Your task to perform on an android device: turn on bluetooth scan Image 0: 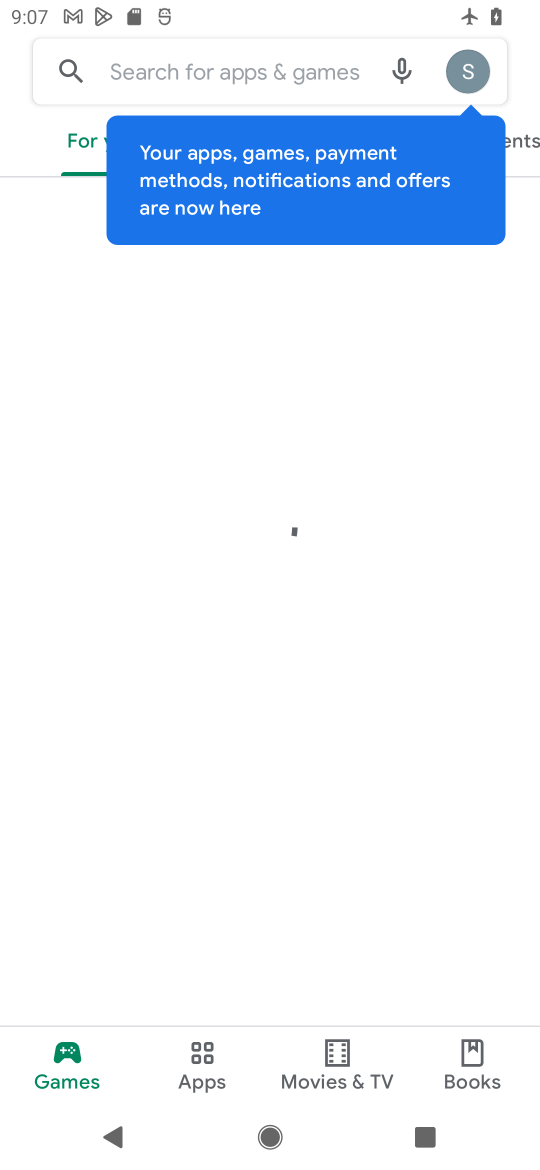
Step 0: press home button
Your task to perform on an android device: turn on bluetooth scan Image 1: 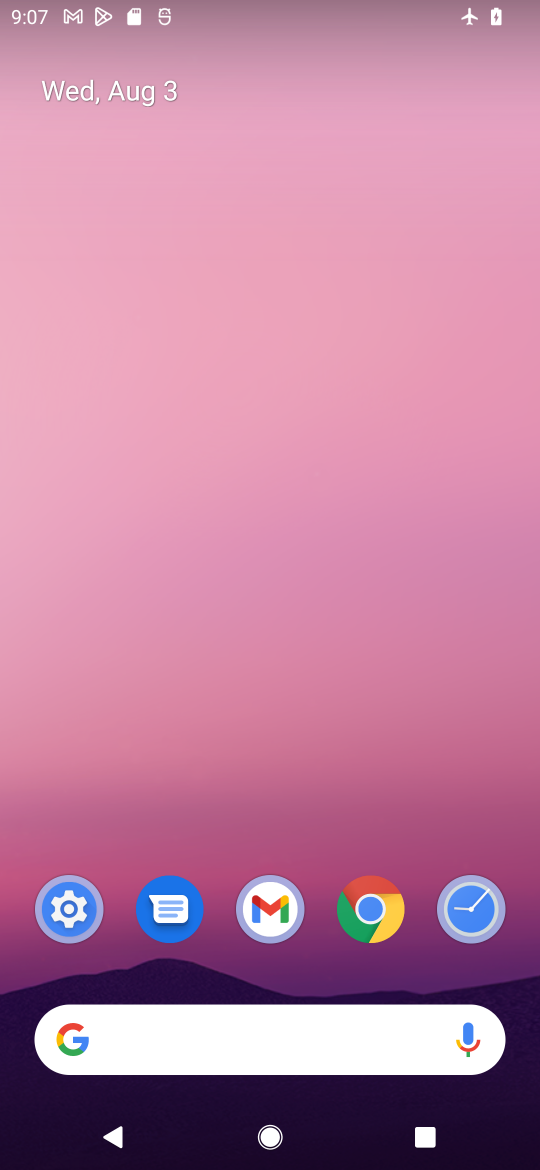
Step 1: drag from (411, 816) to (422, 323)
Your task to perform on an android device: turn on bluetooth scan Image 2: 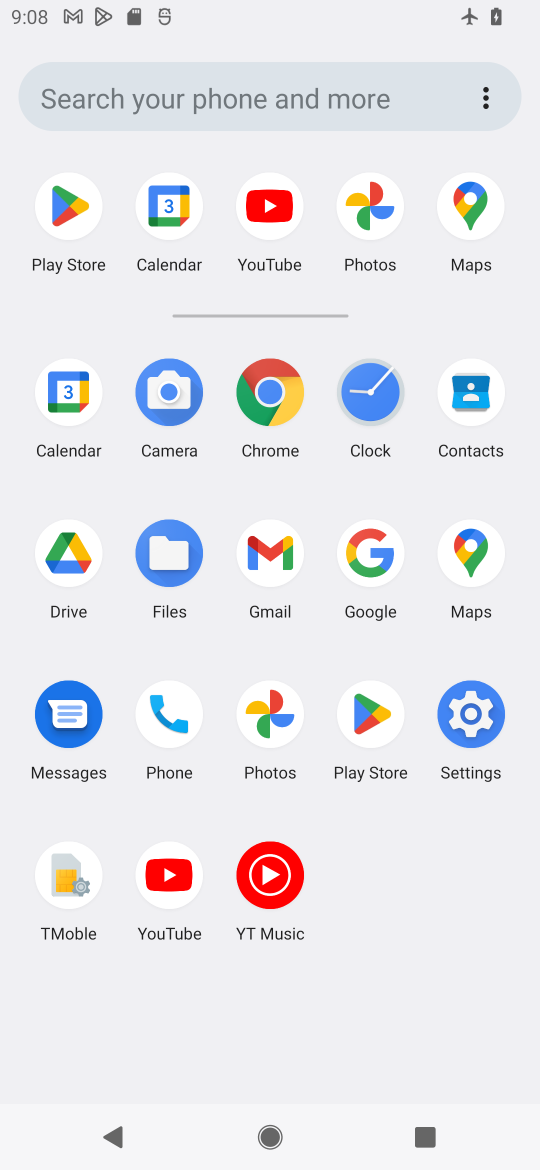
Step 2: click (482, 734)
Your task to perform on an android device: turn on bluetooth scan Image 3: 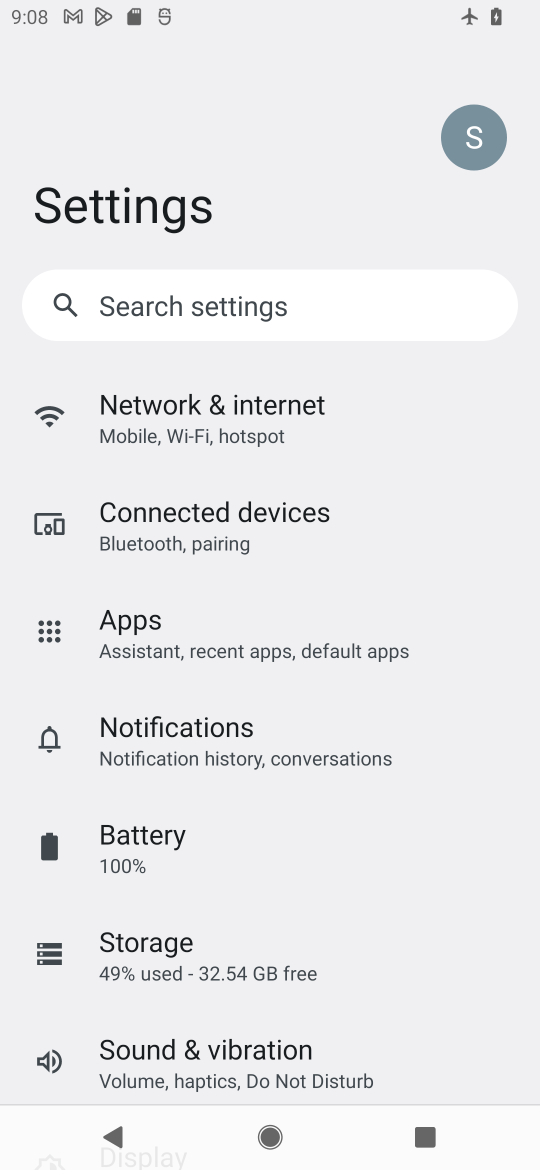
Step 3: drag from (469, 542) to (469, 725)
Your task to perform on an android device: turn on bluetooth scan Image 4: 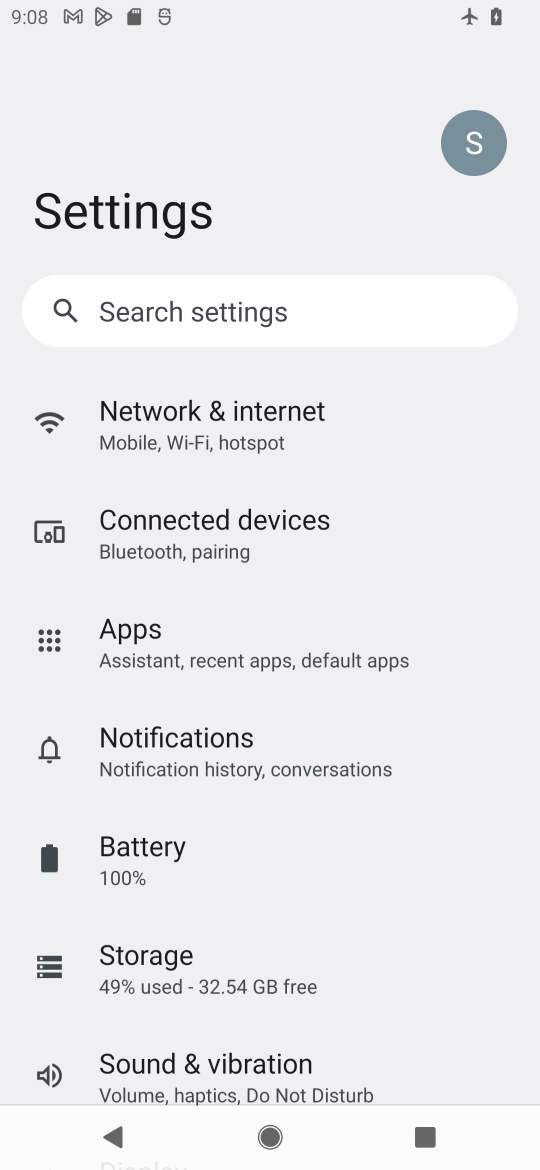
Step 4: drag from (469, 763) to (469, 648)
Your task to perform on an android device: turn on bluetooth scan Image 5: 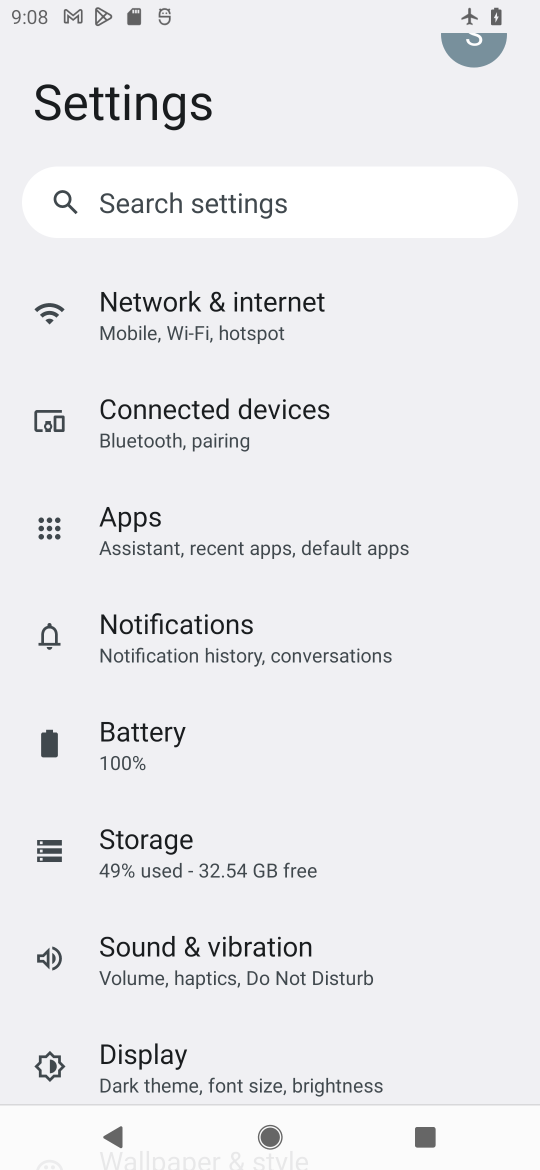
Step 5: drag from (467, 788) to (459, 661)
Your task to perform on an android device: turn on bluetooth scan Image 6: 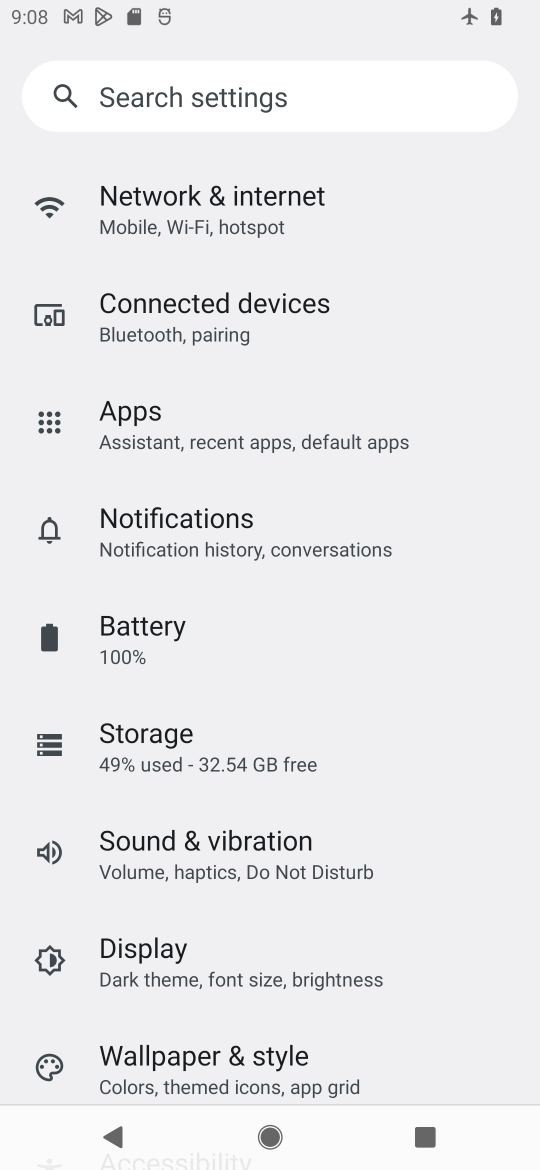
Step 6: drag from (469, 868) to (479, 773)
Your task to perform on an android device: turn on bluetooth scan Image 7: 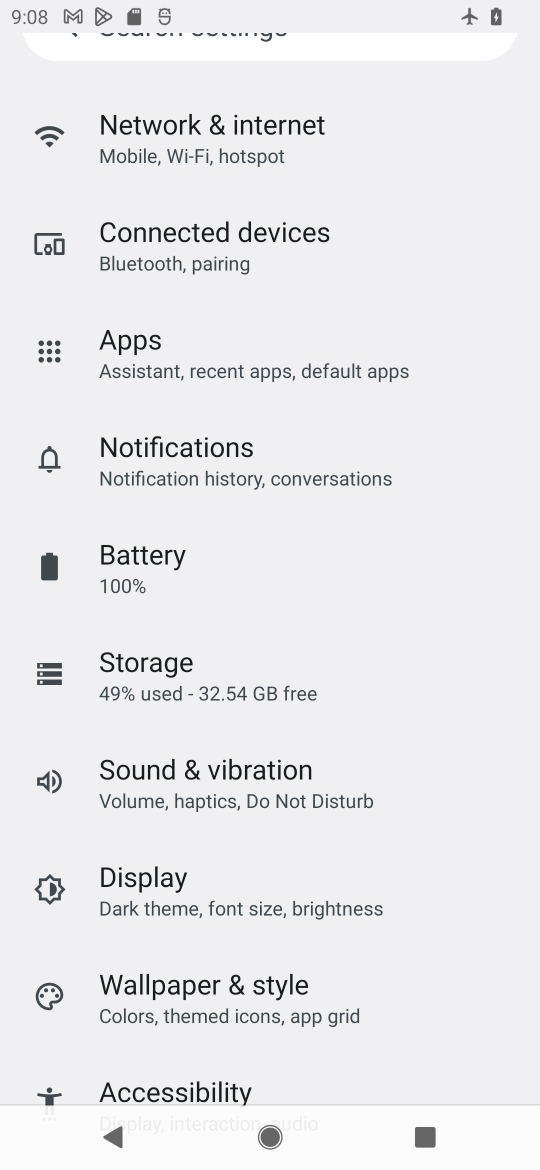
Step 7: drag from (482, 901) to (507, 793)
Your task to perform on an android device: turn on bluetooth scan Image 8: 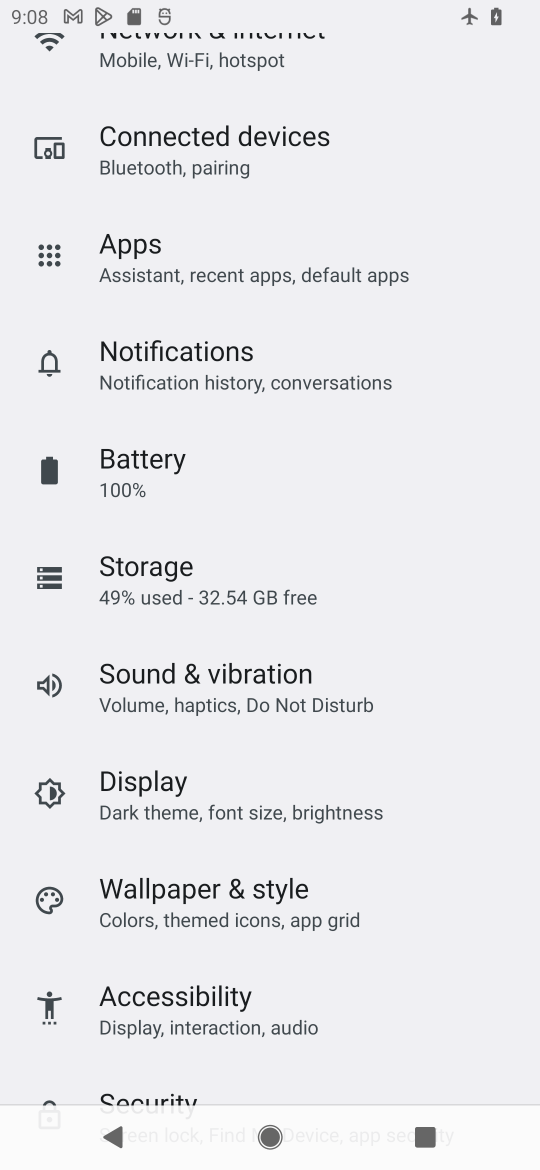
Step 8: drag from (472, 951) to (483, 822)
Your task to perform on an android device: turn on bluetooth scan Image 9: 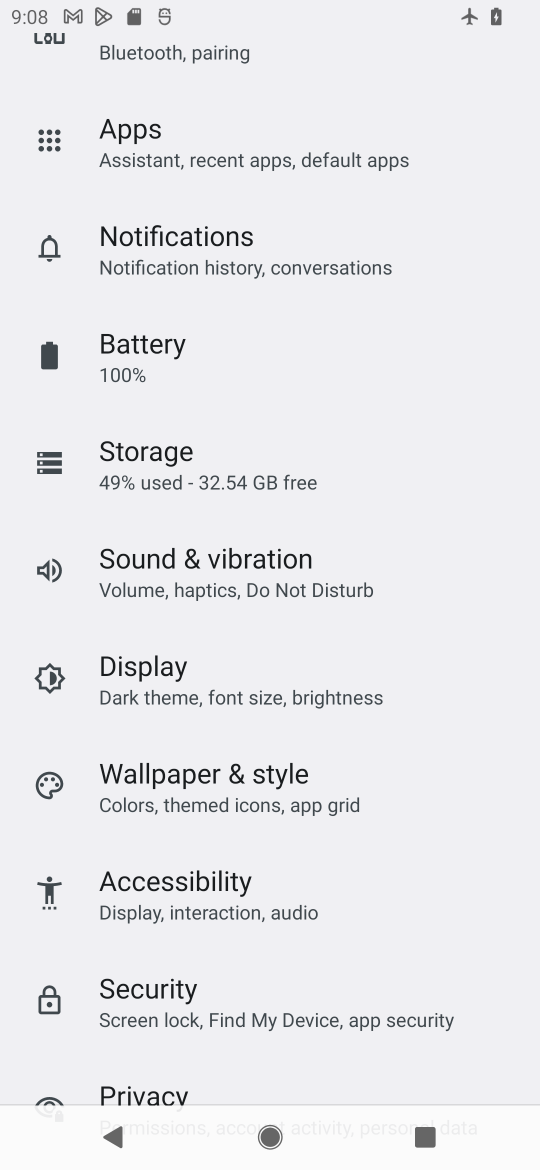
Step 9: drag from (439, 941) to (445, 770)
Your task to perform on an android device: turn on bluetooth scan Image 10: 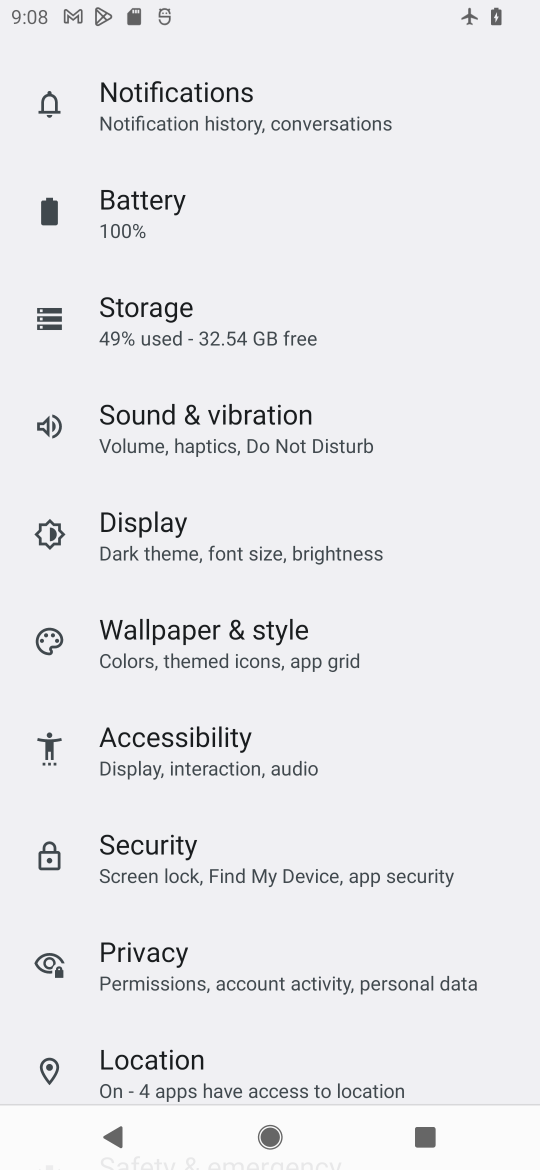
Step 10: drag from (438, 936) to (438, 796)
Your task to perform on an android device: turn on bluetooth scan Image 11: 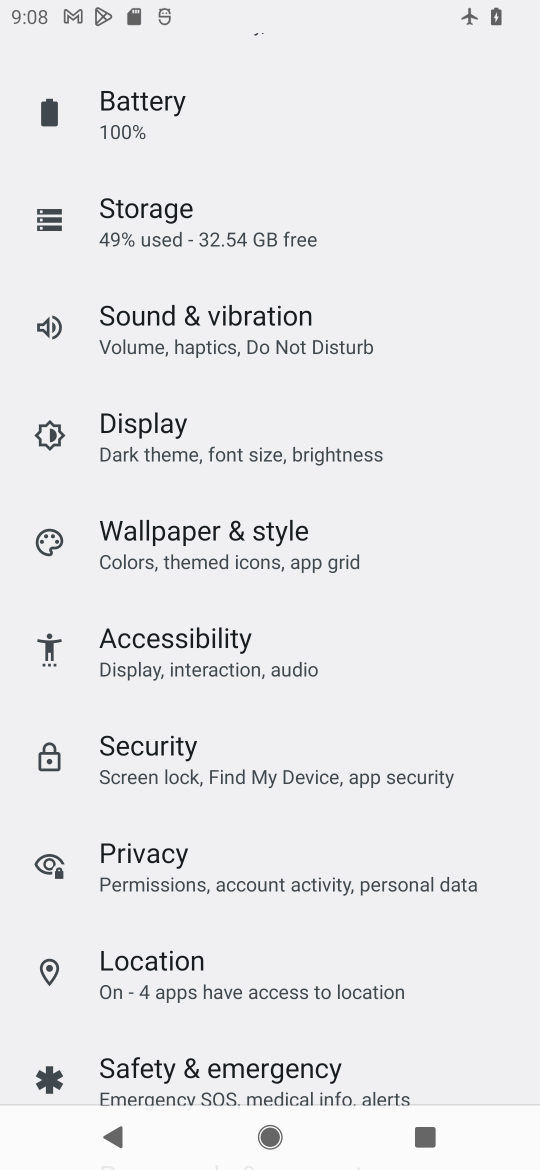
Step 11: drag from (456, 994) to (456, 804)
Your task to perform on an android device: turn on bluetooth scan Image 12: 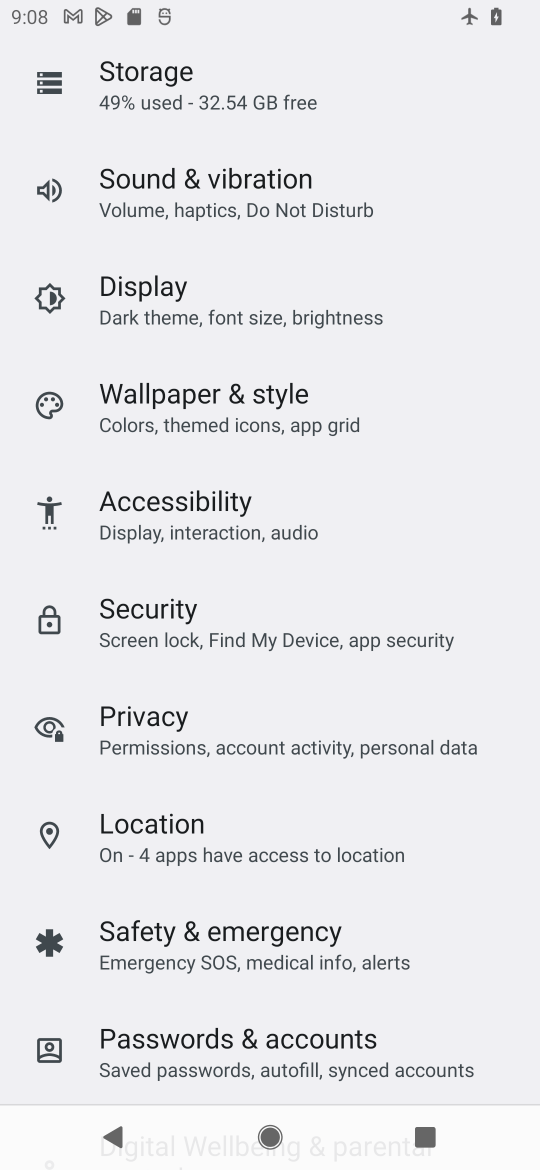
Step 12: drag from (453, 1010) to (456, 835)
Your task to perform on an android device: turn on bluetooth scan Image 13: 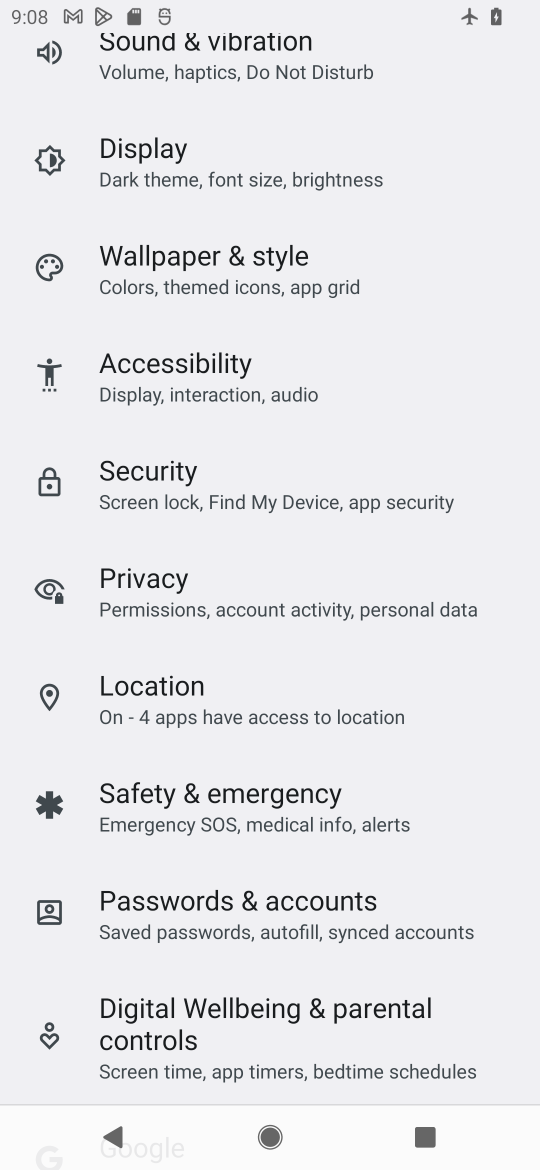
Step 13: click (396, 697)
Your task to perform on an android device: turn on bluetooth scan Image 14: 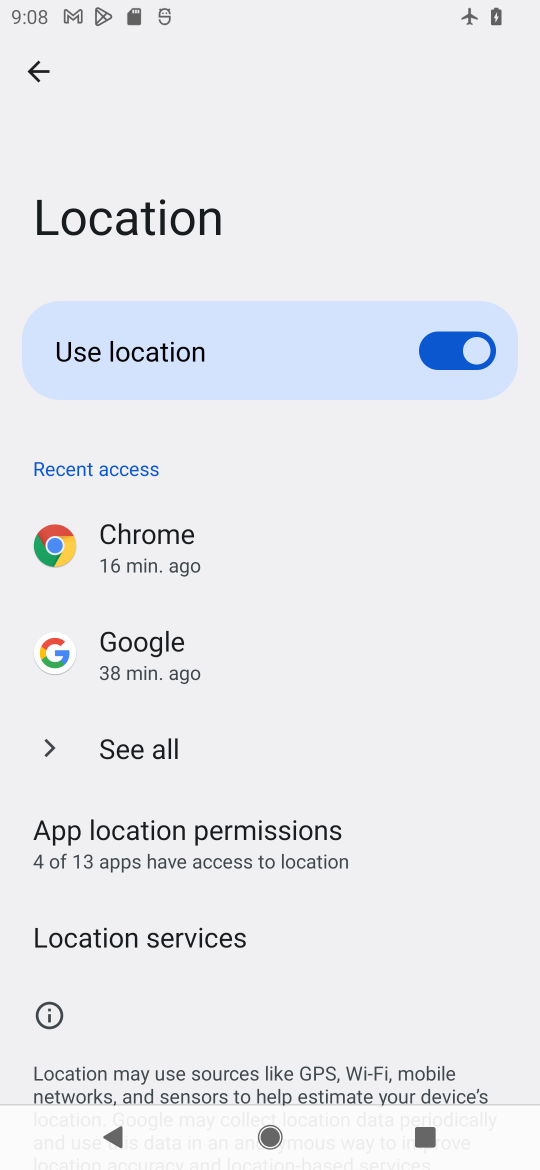
Step 14: drag from (443, 853) to (444, 702)
Your task to perform on an android device: turn on bluetooth scan Image 15: 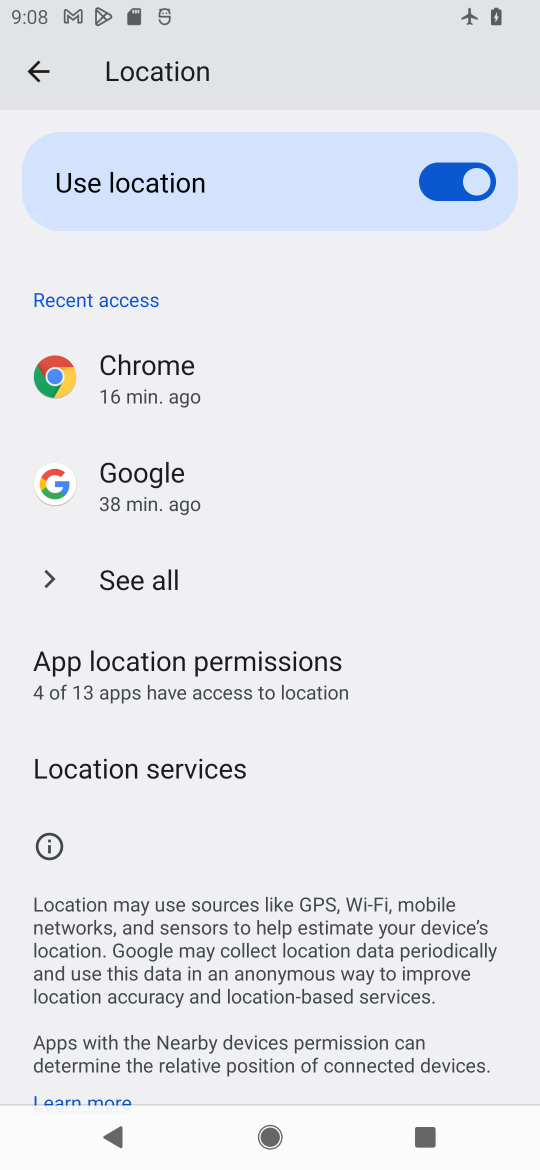
Step 15: drag from (434, 828) to (450, 617)
Your task to perform on an android device: turn on bluetooth scan Image 16: 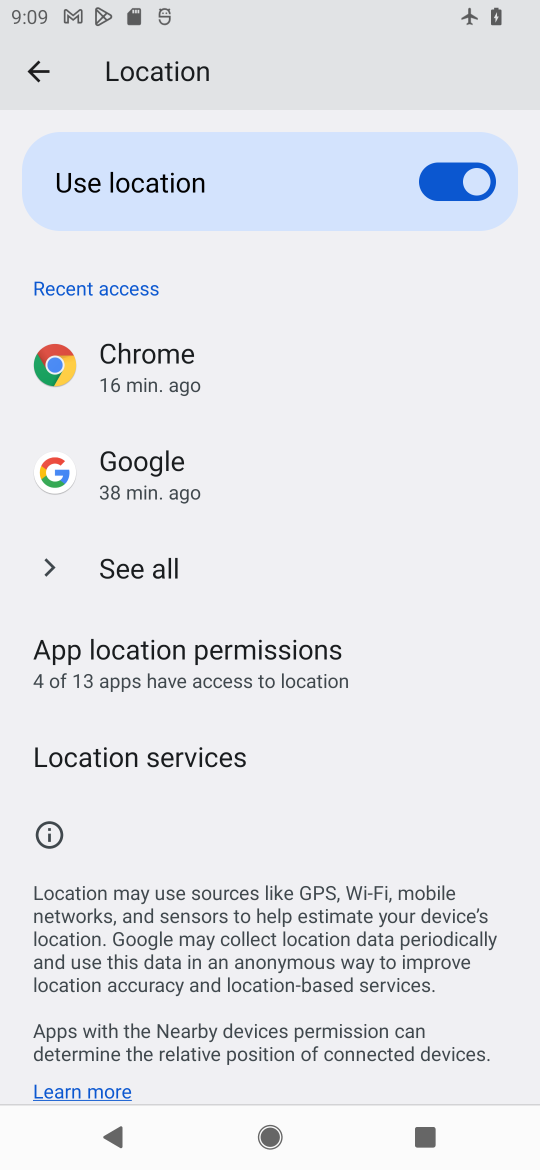
Step 16: click (269, 753)
Your task to perform on an android device: turn on bluetooth scan Image 17: 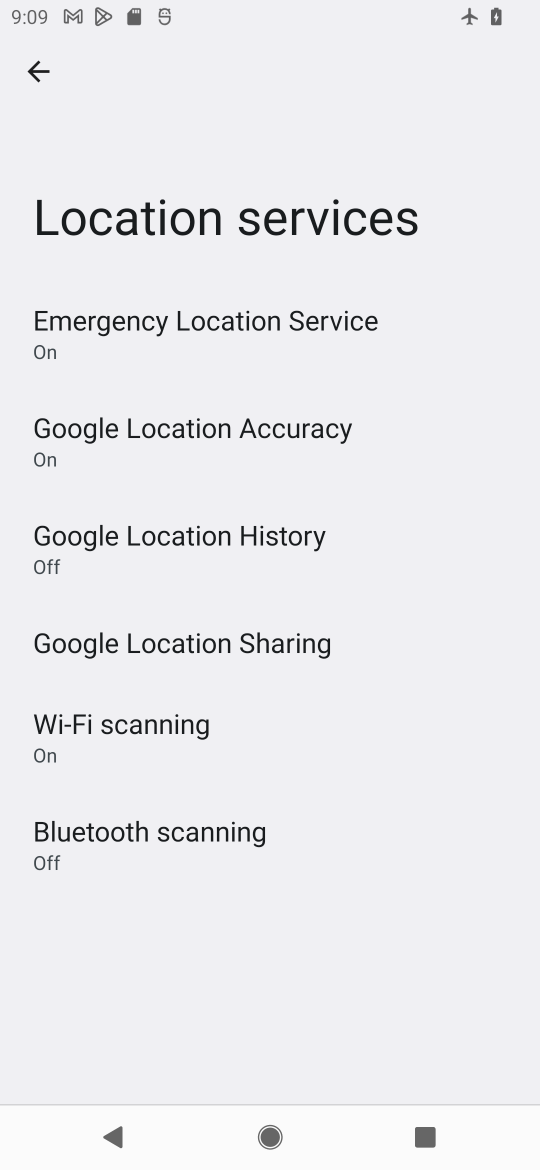
Step 17: click (197, 839)
Your task to perform on an android device: turn on bluetooth scan Image 18: 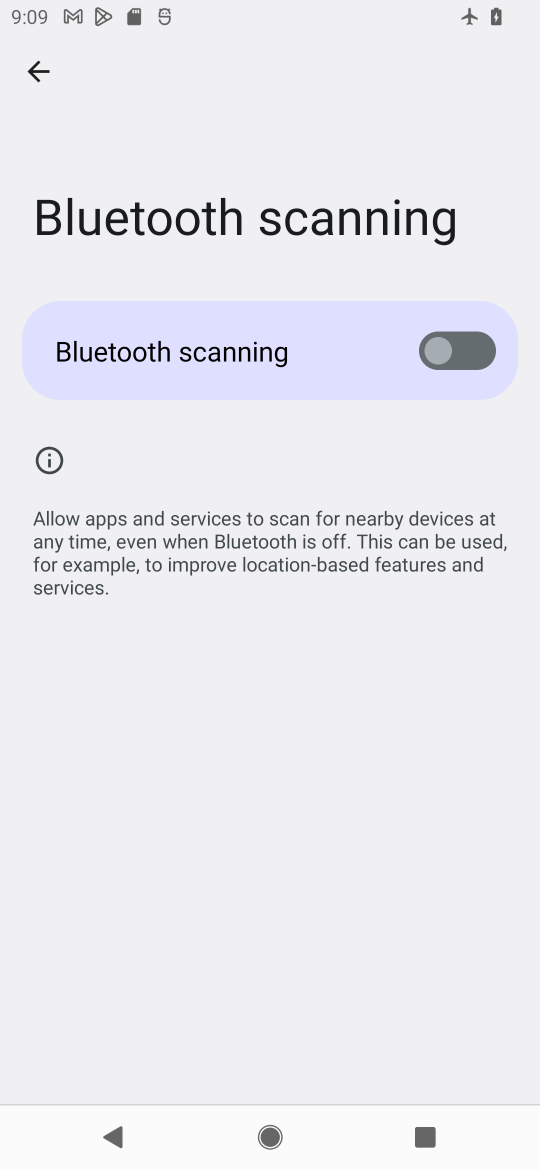
Step 18: click (439, 349)
Your task to perform on an android device: turn on bluetooth scan Image 19: 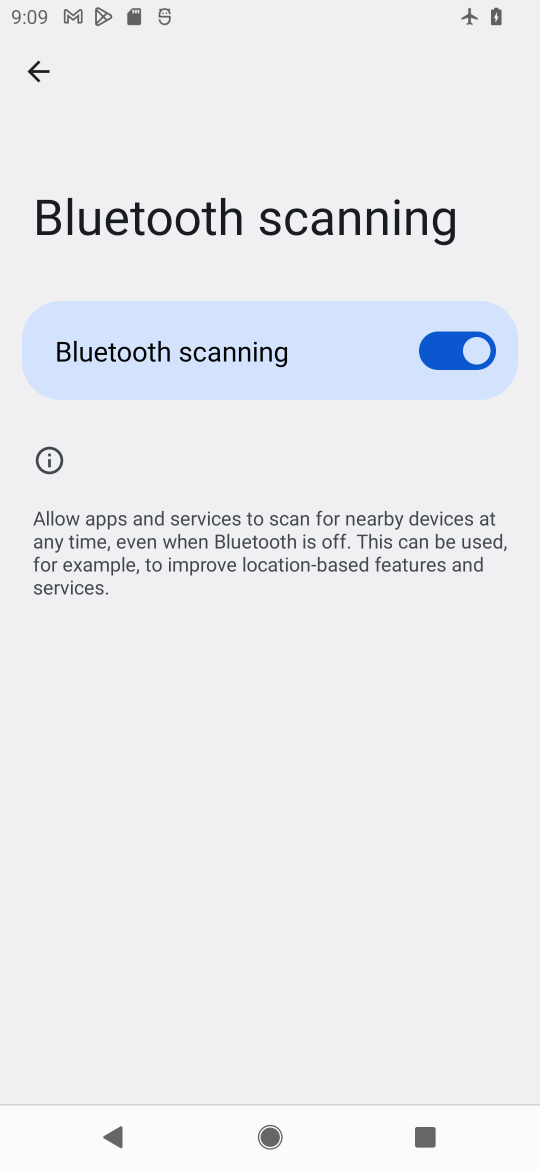
Step 19: task complete